Your task to perform on an android device: Open calendar and show me the first week of next month Image 0: 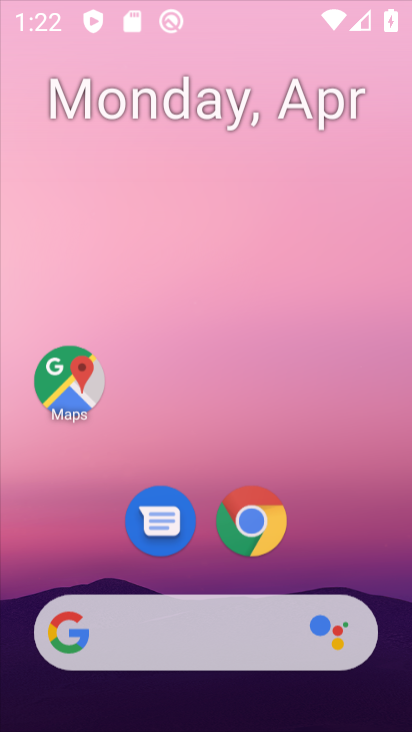
Step 0: click (289, 214)
Your task to perform on an android device: Open calendar and show me the first week of next month Image 1: 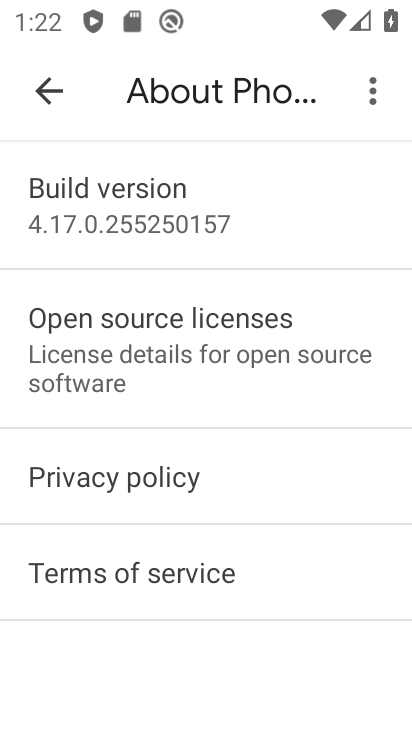
Step 1: press home button
Your task to perform on an android device: Open calendar and show me the first week of next month Image 2: 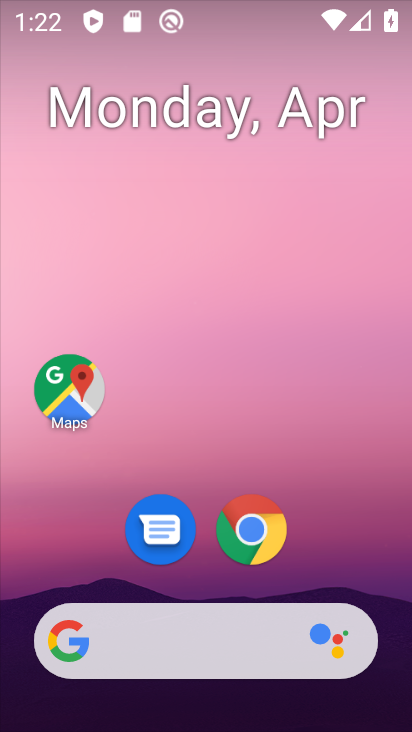
Step 2: drag from (315, 567) to (369, 244)
Your task to perform on an android device: Open calendar and show me the first week of next month Image 3: 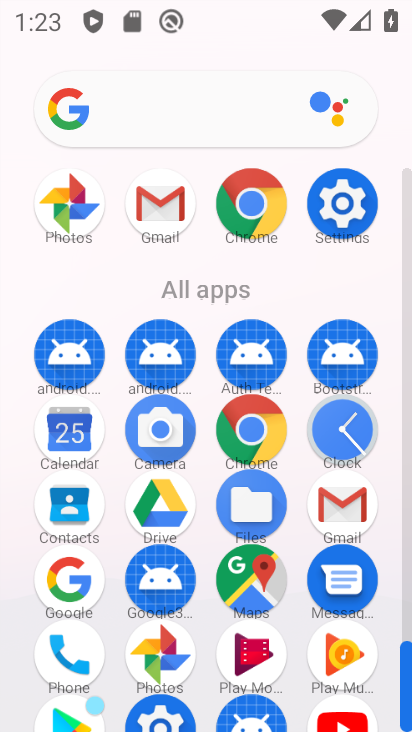
Step 3: click (62, 413)
Your task to perform on an android device: Open calendar and show me the first week of next month Image 4: 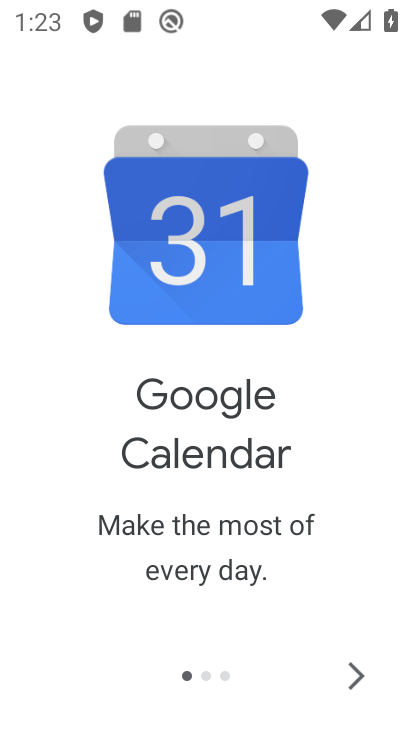
Step 4: click (354, 680)
Your task to perform on an android device: Open calendar and show me the first week of next month Image 5: 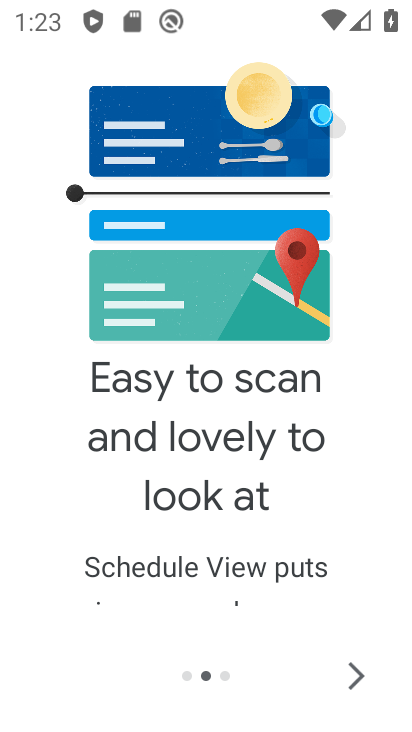
Step 5: click (351, 657)
Your task to perform on an android device: Open calendar and show me the first week of next month Image 6: 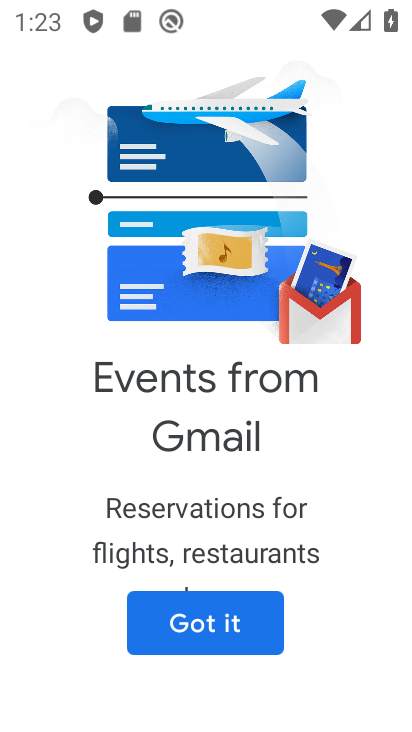
Step 6: click (230, 615)
Your task to perform on an android device: Open calendar and show me the first week of next month Image 7: 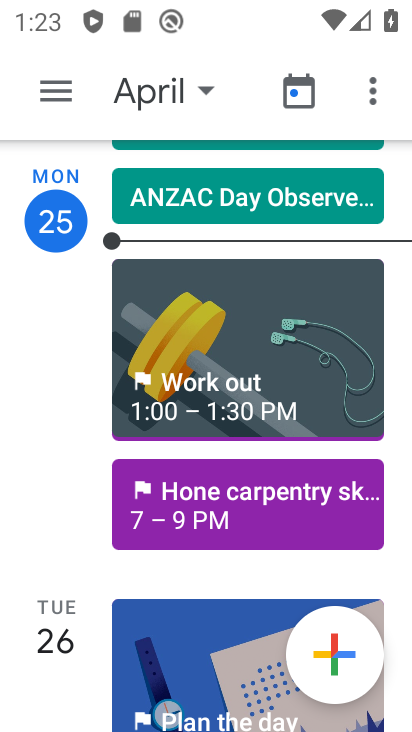
Step 7: click (47, 81)
Your task to perform on an android device: Open calendar and show me the first week of next month Image 8: 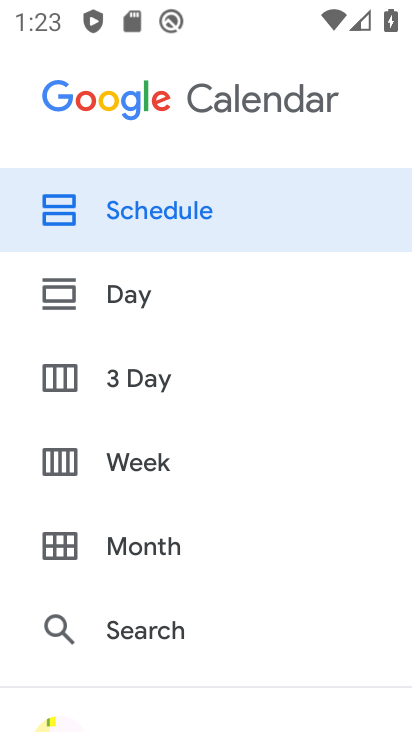
Step 8: click (156, 534)
Your task to perform on an android device: Open calendar and show me the first week of next month Image 9: 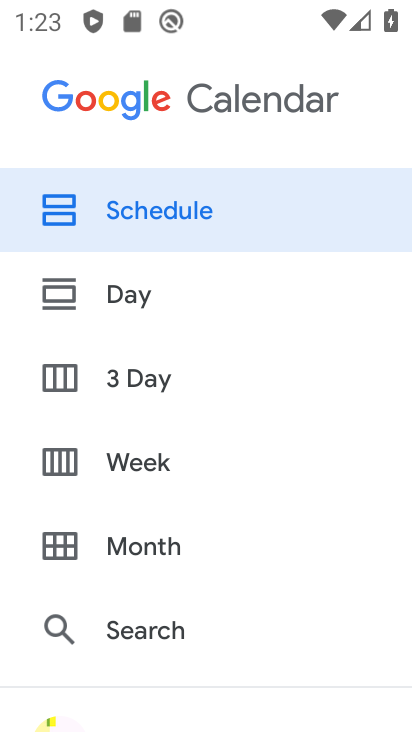
Step 9: click (164, 545)
Your task to perform on an android device: Open calendar and show me the first week of next month Image 10: 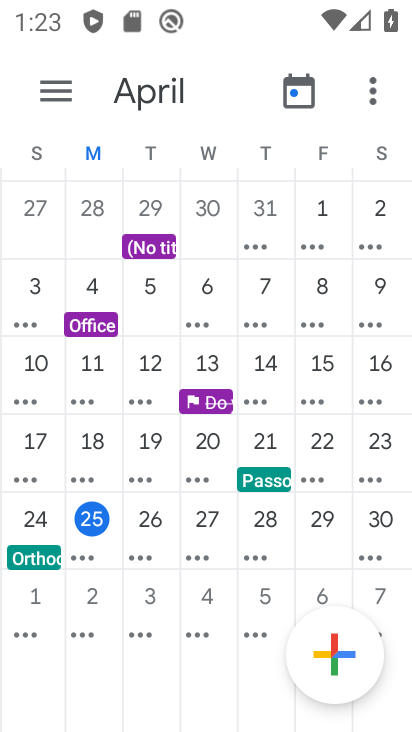
Step 10: task complete